Your task to perform on an android device: open the mobile data screen to see how much data has been used Image 0: 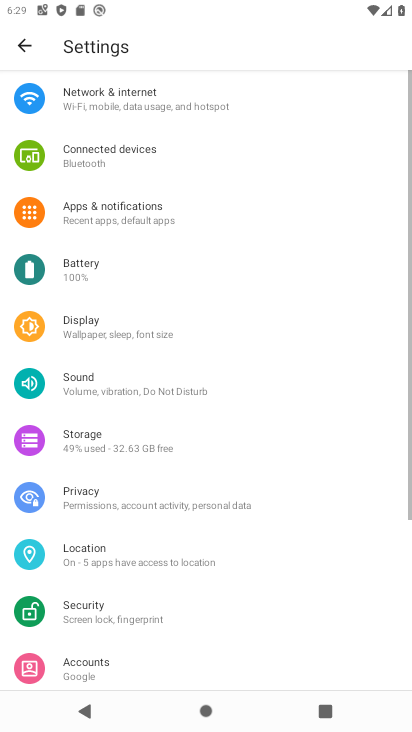
Step 0: press home button
Your task to perform on an android device: open the mobile data screen to see how much data has been used Image 1: 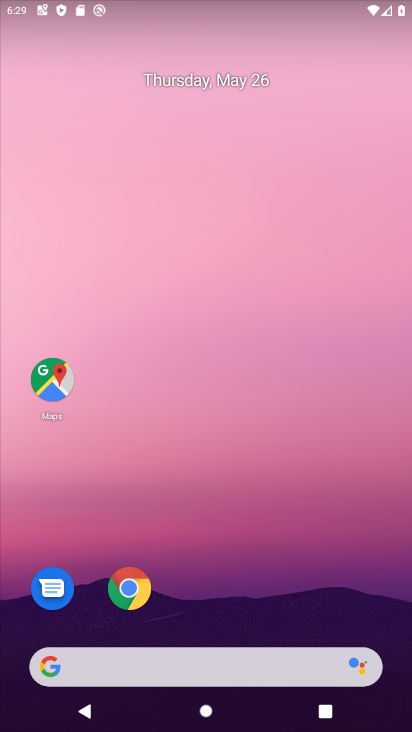
Step 1: drag from (349, 596) to (322, 50)
Your task to perform on an android device: open the mobile data screen to see how much data has been used Image 2: 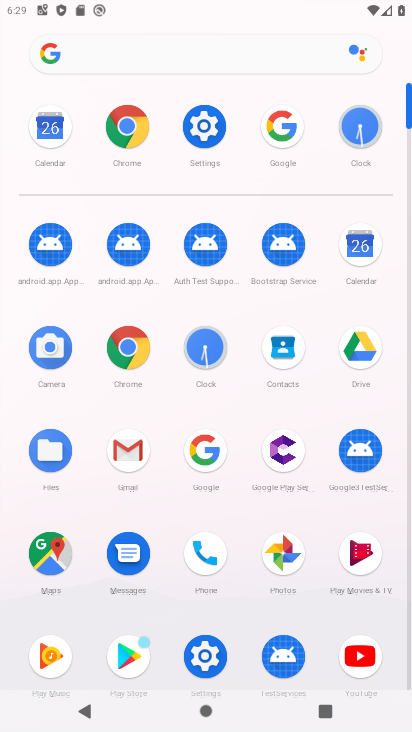
Step 2: click (204, 135)
Your task to perform on an android device: open the mobile data screen to see how much data has been used Image 3: 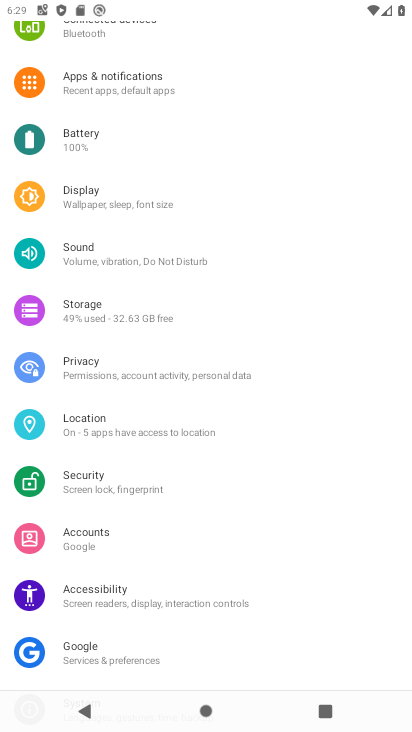
Step 3: drag from (196, 126) to (261, 568)
Your task to perform on an android device: open the mobile data screen to see how much data has been used Image 4: 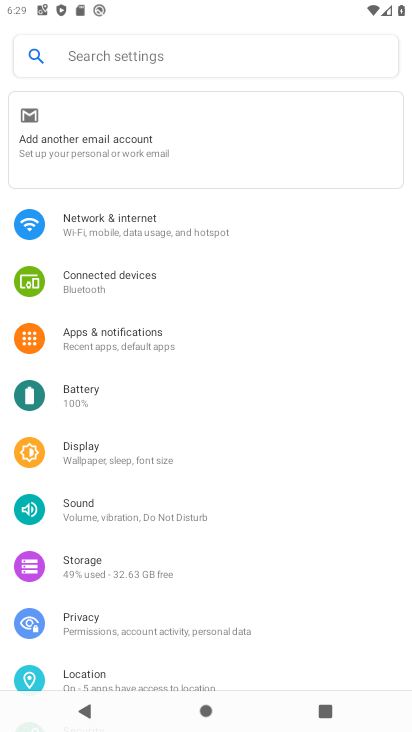
Step 4: click (176, 247)
Your task to perform on an android device: open the mobile data screen to see how much data has been used Image 5: 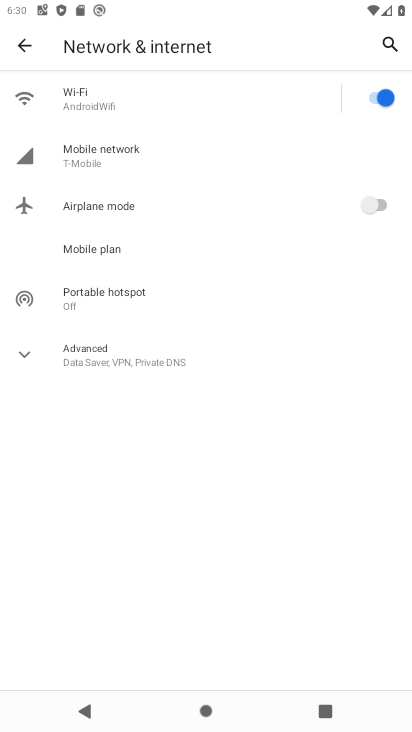
Step 5: click (160, 147)
Your task to perform on an android device: open the mobile data screen to see how much data has been used Image 6: 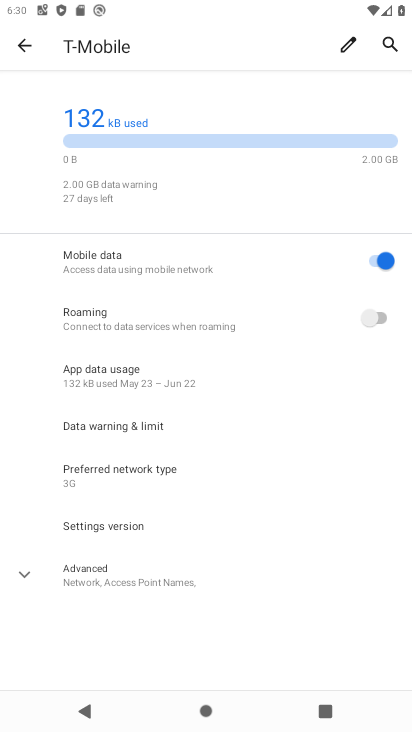
Step 6: click (160, 381)
Your task to perform on an android device: open the mobile data screen to see how much data has been used Image 7: 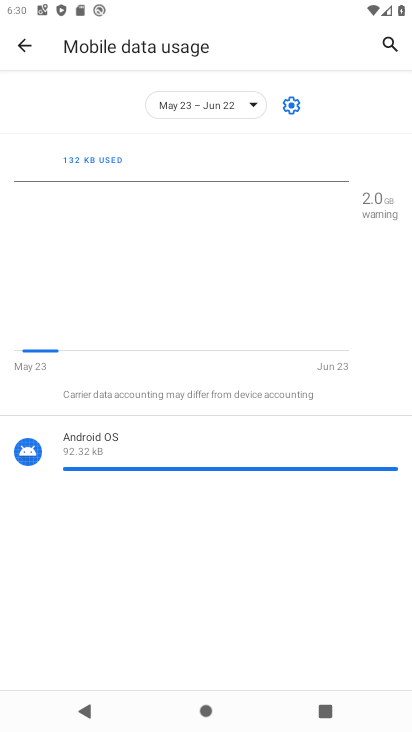
Step 7: task complete